Your task to perform on an android device: Is it going to rain this weekend? Image 0: 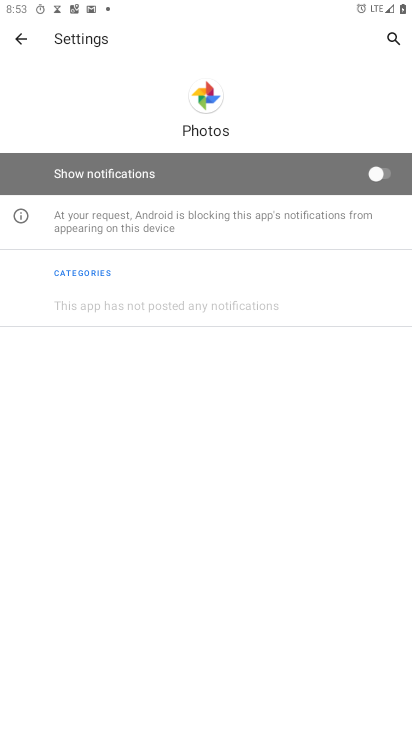
Step 0: press home button
Your task to perform on an android device: Is it going to rain this weekend? Image 1: 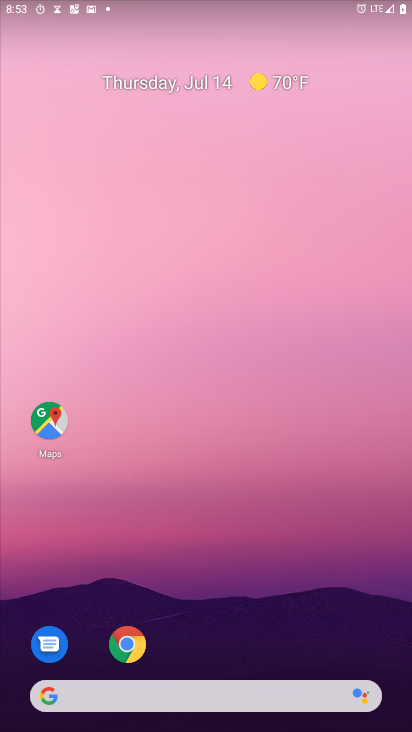
Step 1: click (147, 694)
Your task to perform on an android device: Is it going to rain this weekend? Image 2: 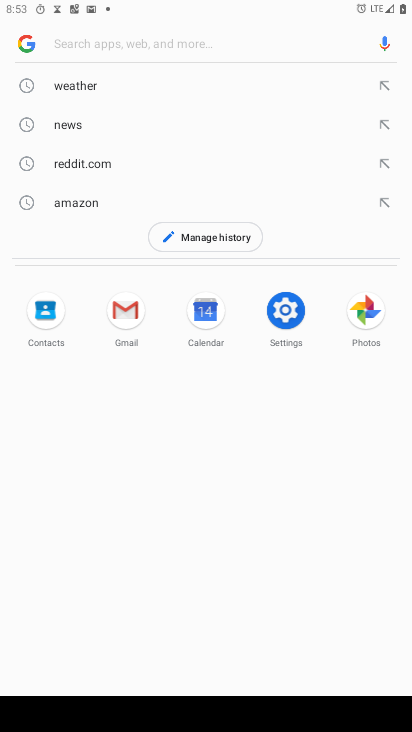
Step 2: click (77, 75)
Your task to perform on an android device: Is it going to rain this weekend? Image 3: 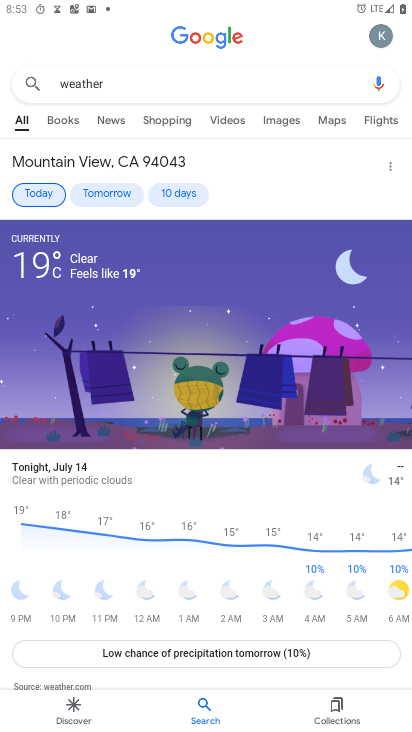
Step 3: click (178, 195)
Your task to perform on an android device: Is it going to rain this weekend? Image 4: 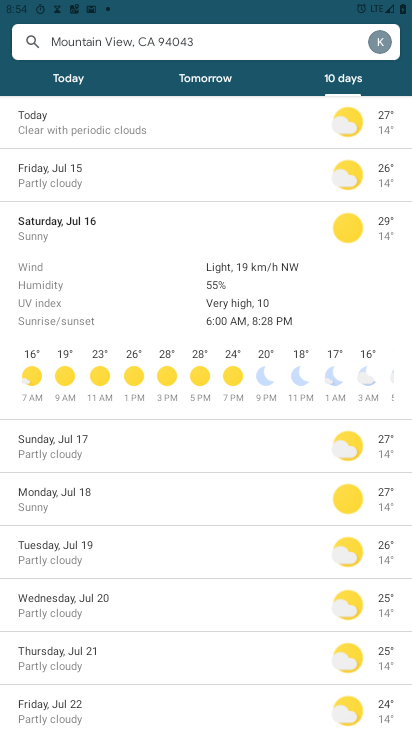
Step 4: task complete